Your task to perform on an android device: Go to calendar. Show me events next week Image 0: 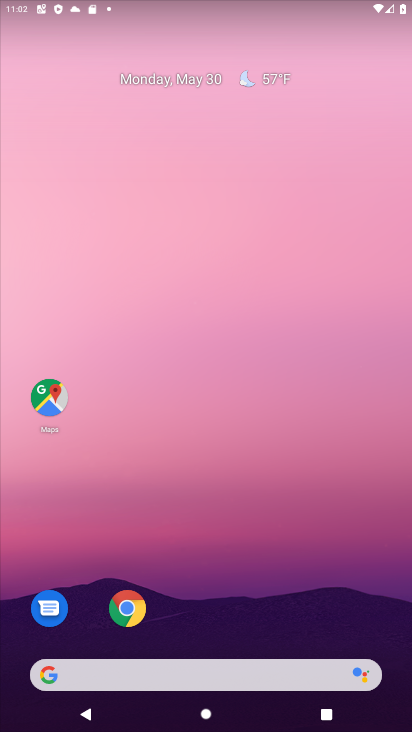
Step 0: drag from (299, 469) to (243, 0)
Your task to perform on an android device: Go to calendar. Show me events next week Image 1: 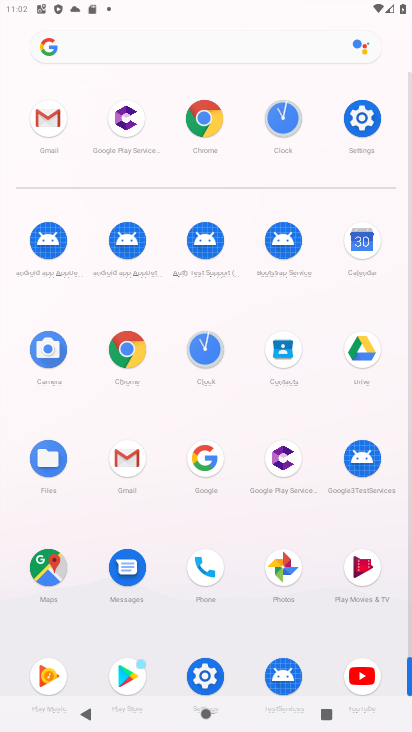
Step 1: drag from (18, 521) to (19, 219)
Your task to perform on an android device: Go to calendar. Show me events next week Image 2: 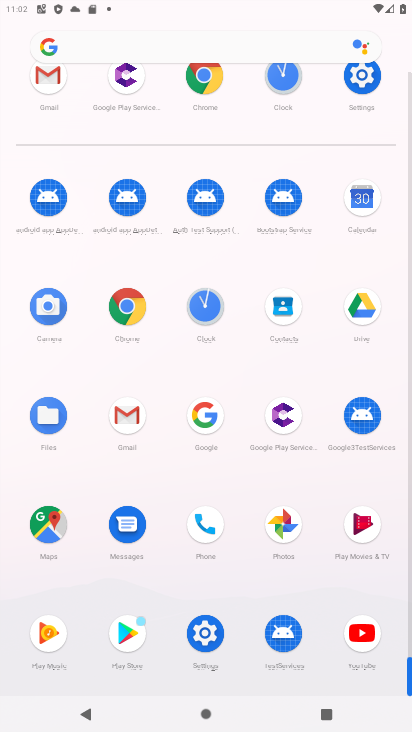
Step 2: drag from (11, 584) to (12, 307)
Your task to perform on an android device: Go to calendar. Show me events next week Image 3: 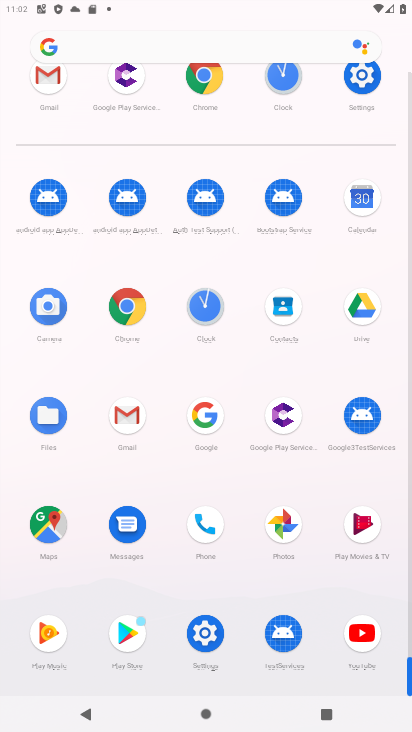
Step 3: click (364, 198)
Your task to perform on an android device: Go to calendar. Show me events next week Image 4: 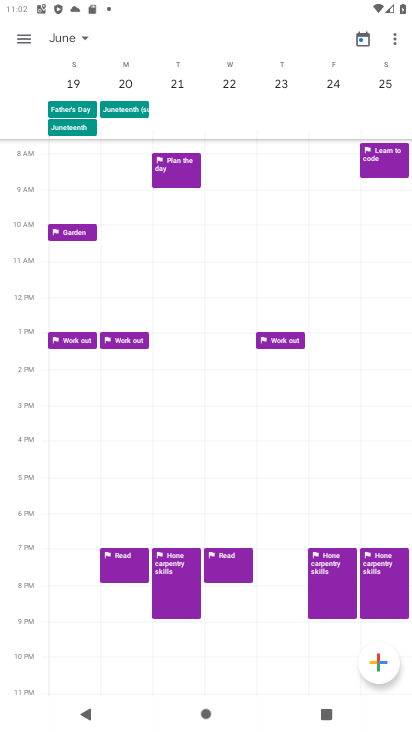
Step 4: click (26, 40)
Your task to perform on an android device: Go to calendar. Show me events next week Image 5: 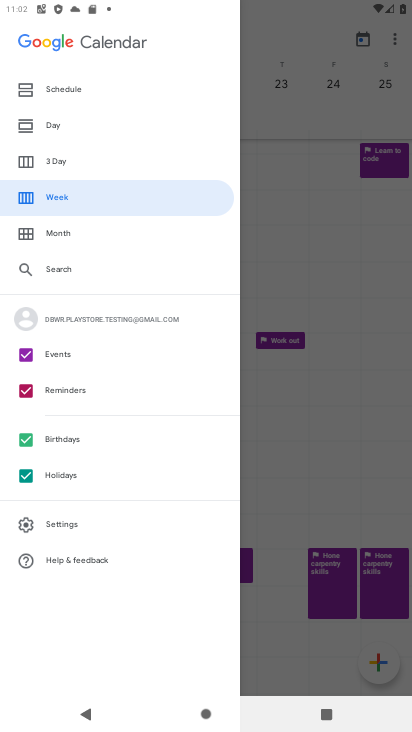
Step 5: click (362, 34)
Your task to perform on an android device: Go to calendar. Show me events next week Image 6: 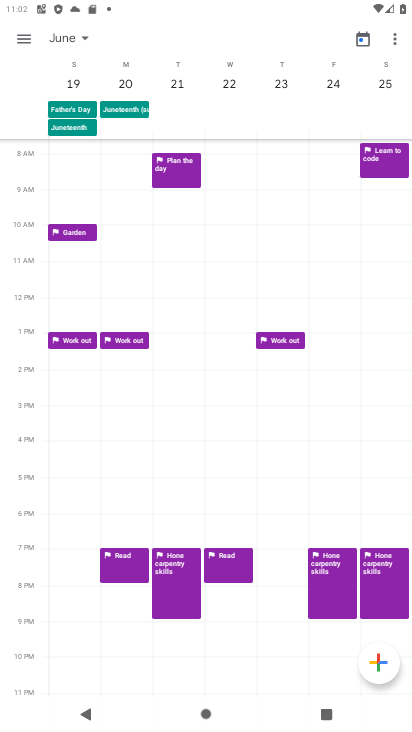
Step 6: click (362, 34)
Your task to perform on an android device: Go to calendar. Show me events next week Image 7: 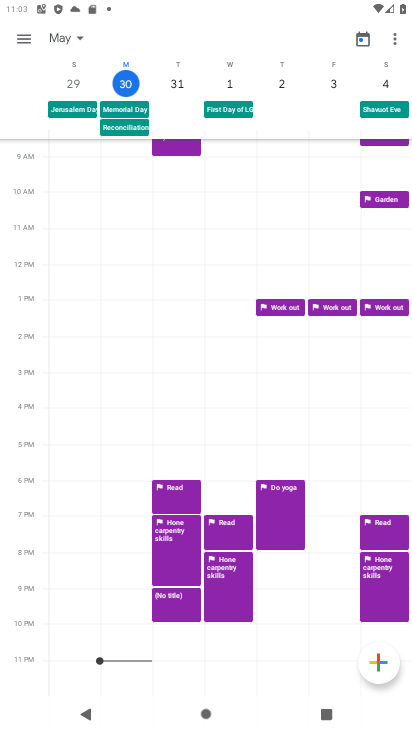
Step 7: click (22, 39)
Your task to perform on an android device: Go to calendar. Show me events next week Image 8: 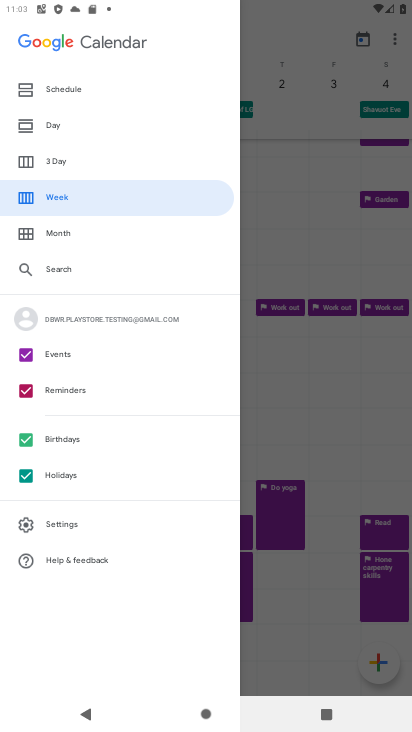
Step 8: click (110, 201)
Your task to perform on an android device: Go to calendar. Show me events next week Image 9: 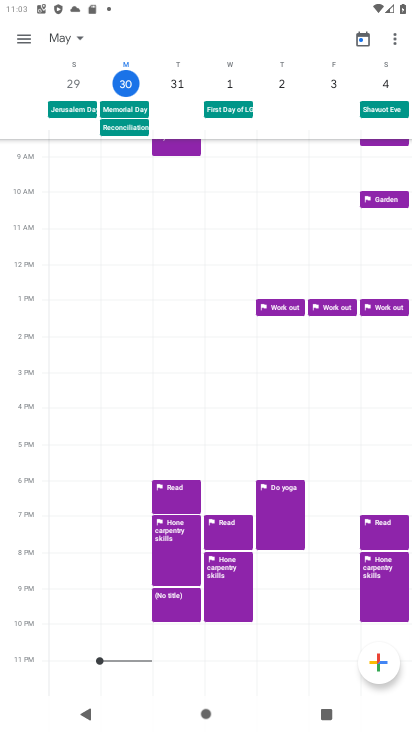
Step 9: task complete